Your task to perform on an android device: set an alarm Image 0: 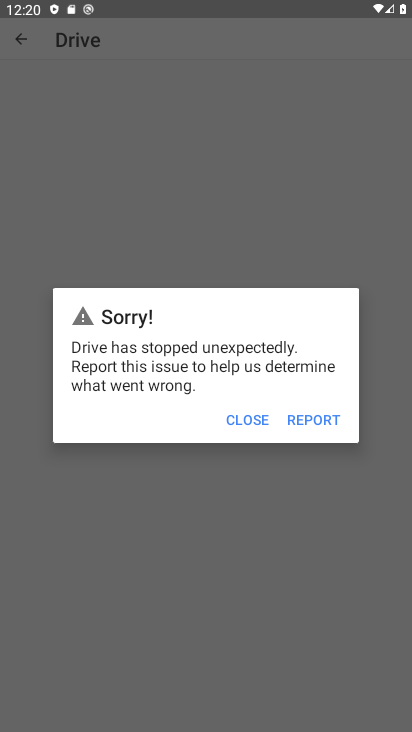
Step 0: press home button
Your task to perform on an android device: set an alarm Image 1: 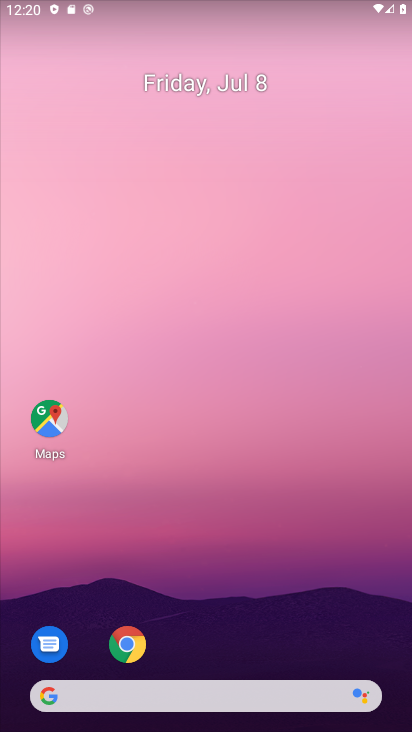
Step 1: drag from (214, 695) to (108, 40)
Your task to perform on an android device: set an alarm Image 2: 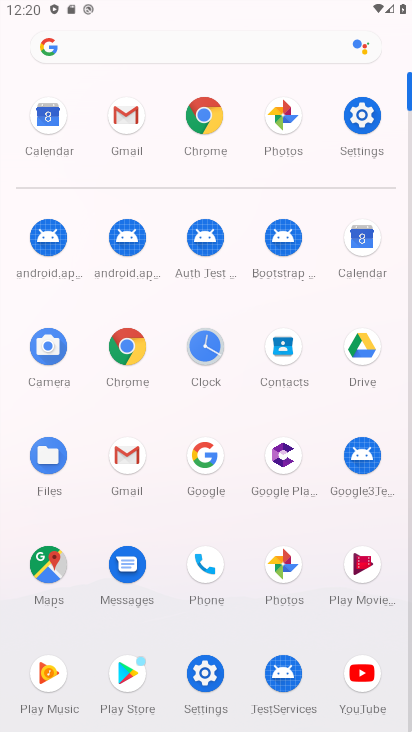
Step 2: click (214, 349)
Your task to perform on an android device: set an alarm Image 3: 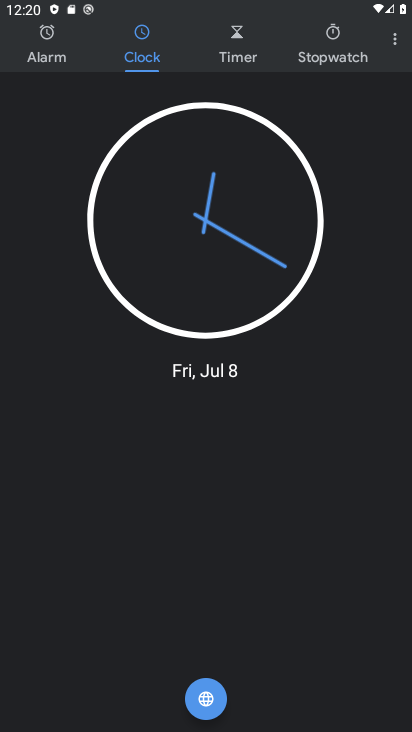
Step 3: click (56, 42)
Your task to perform on an android device: set an alarm Image 4: 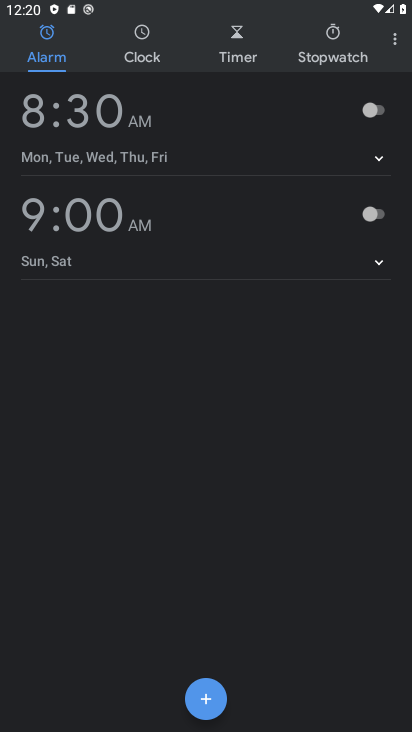
Step 4: click (206, 713)
Your task to perform on an android device: set an alarm Image 5: 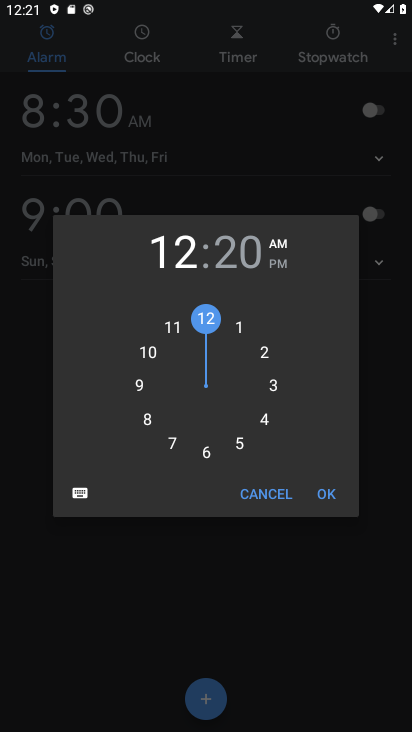
Step 5: click (324, 498)
Your task to perform on an android device: set an alarm Image 6: 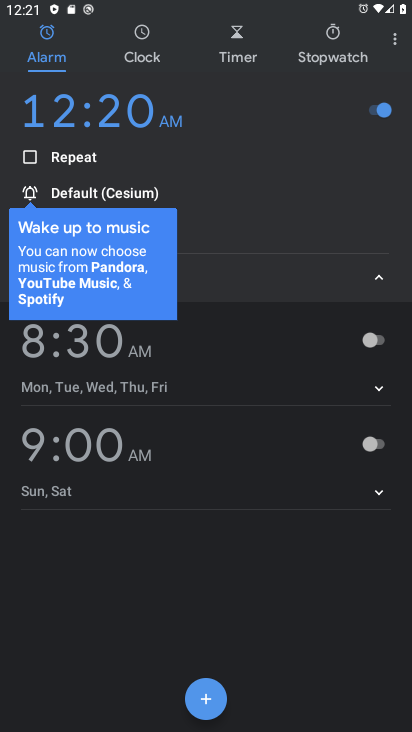
Step 6: task complete